Your task to perform on an android device: What's on my calendar tomorrow? Image 0: 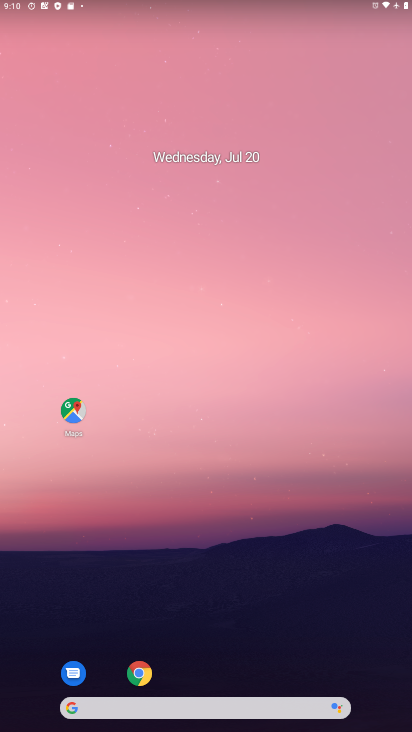
Step 0: drag from (191, 679) to (190, 67)
Your task to perform on an android device: What's on my calendar tomorrow? Image 1: 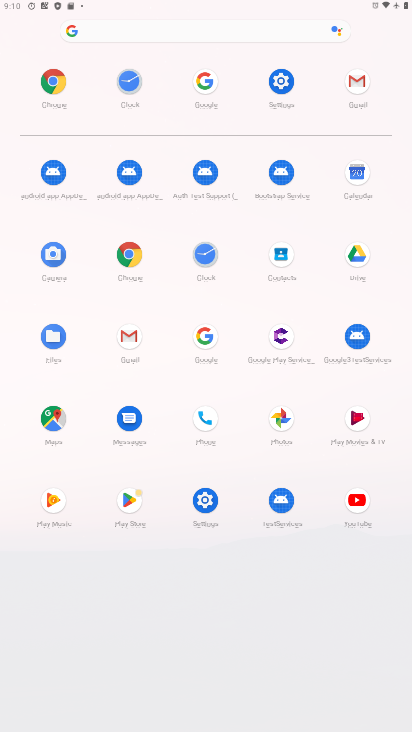
Step 1: click (358, 169)
Your task to perform on an android device: What's on my calendar tomorrow? Image 2: 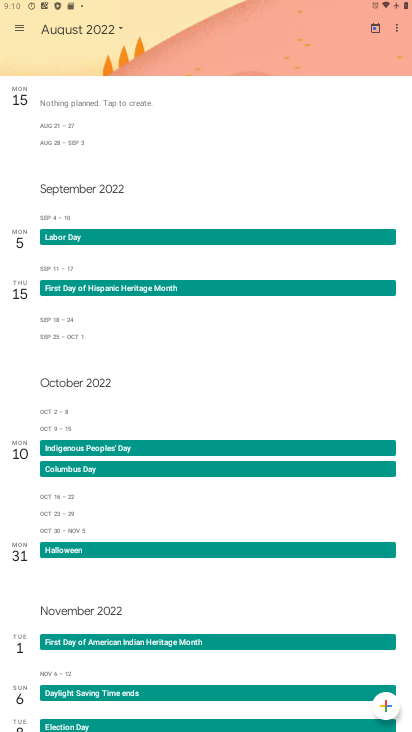
Step 2: click (111, 27)
Your task to perform on an android device: What's on my calendar tomorrow? Image 3: 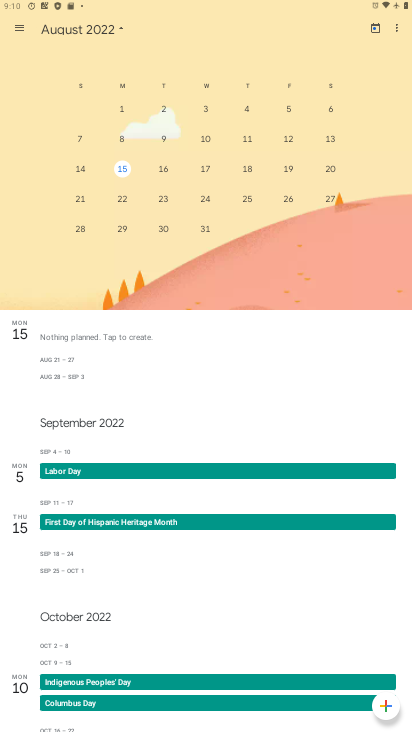
Step 3: drag from (31, 247) to (408, 221)
Your task to perform on an android device: What's on my calendar tomorrow? Image 4: 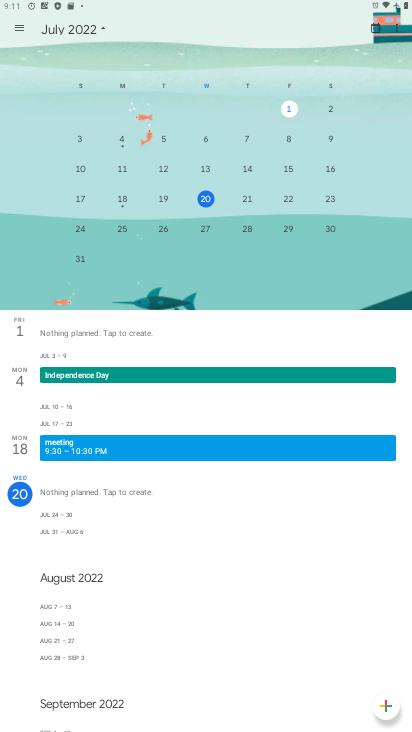
Step 4: click (247, 200)
Your task to perform on an android device: What's on my calendar tomorrow? Image 5: 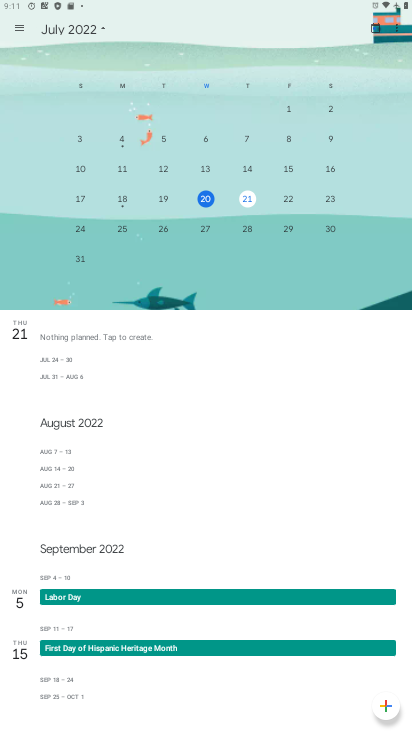
Step 5: task complete